Your task to perform on an android device: check data usage Image 0: 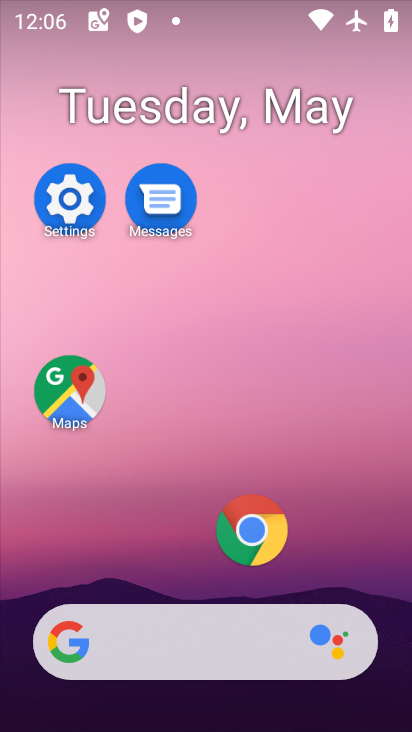
Step 0: drag from (241, 263) to (286, 15)
Your task to perform on an android device: check data usage Image 1: 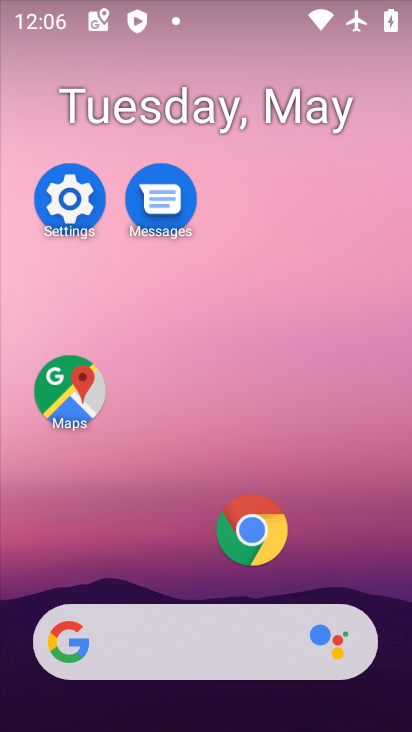
Step 1: drag from (191, 544) to (305, 16)
Your task to perform on an android device: check data usage Image 2: 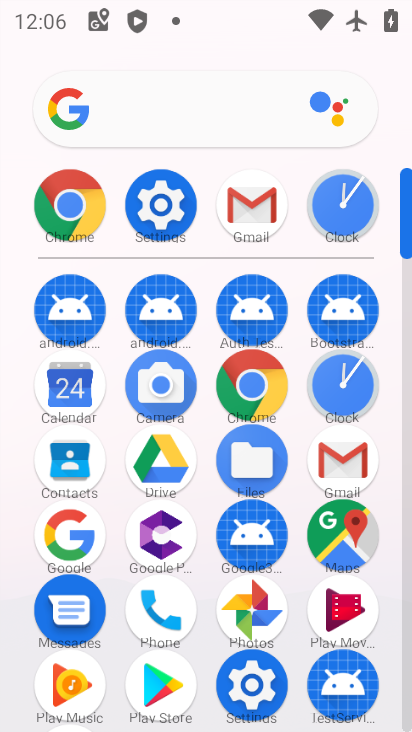
Step 2: click (256, 685)
Your task to perform on an android device: check data usage Image 3: 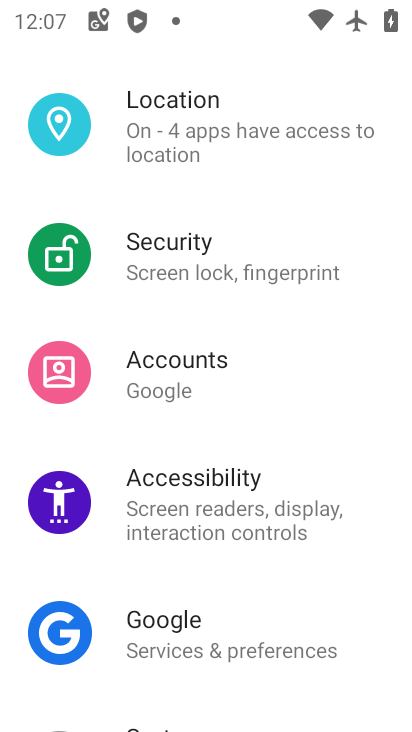
Step 3: drag from (135, 605) to (241, 229)
Your task to perform on an android device: check data usage Image 4: 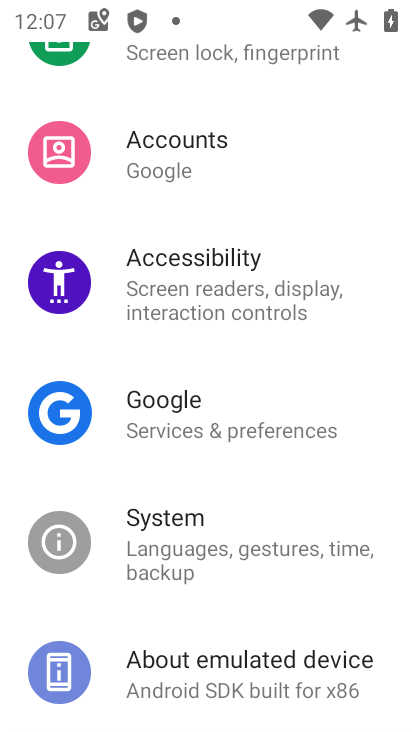
Step 4: click (324, 438)
Your task to perform on an android device: check data usage Image 5: 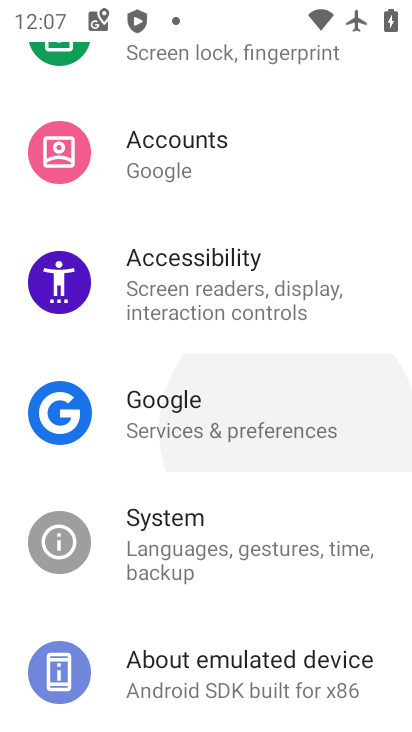
Step 5: drag from (312, 318) to (227, 715)
Your task to perform on an android device: check data usage Image 6: 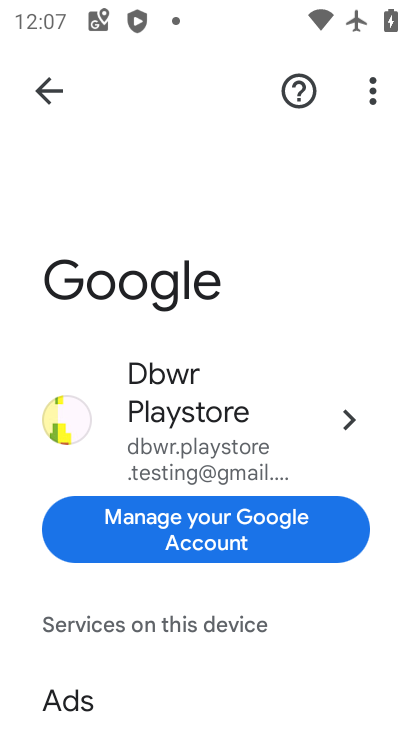
Step 6: press back button
Your task to perform on an android device: check data usage Image 7: 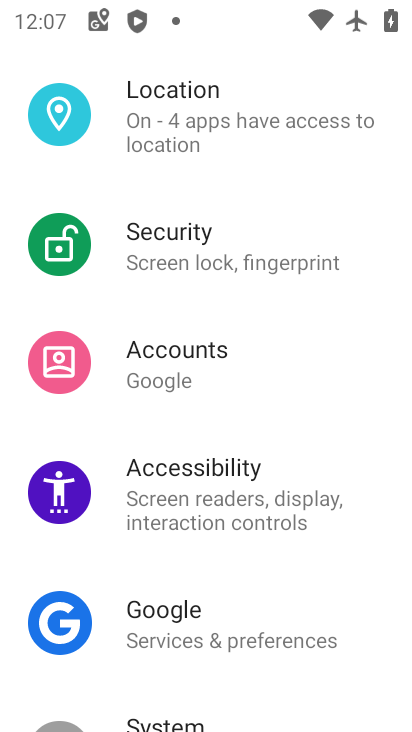
Step 7: drag from (298, 273) to (218, 715)
Your task to perform on an android device: check data usage Image 8: 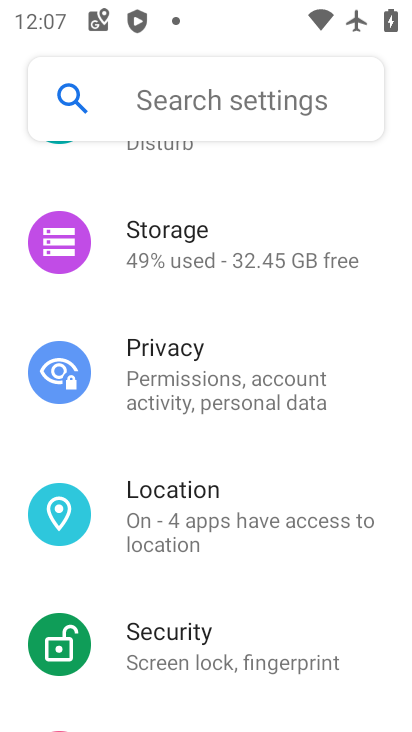
Step 8: drag from (270, 218) to (224, 714)
Your task to perform on an android device: check data usage Image 9: 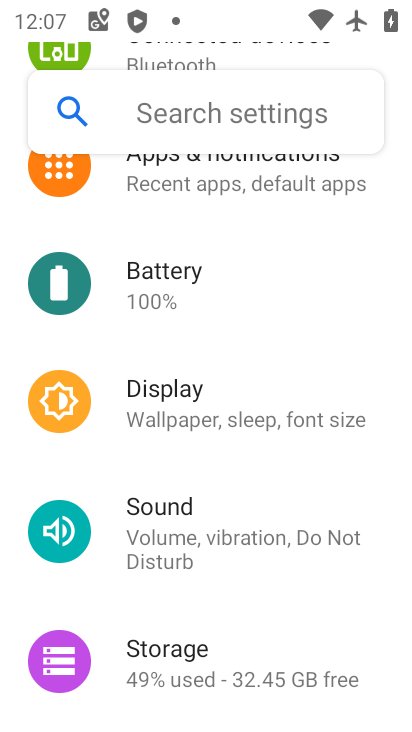
Step 9: drag from (241, 265) to (226, 714)
Your task to perform on an android device: check data usage Image 10: 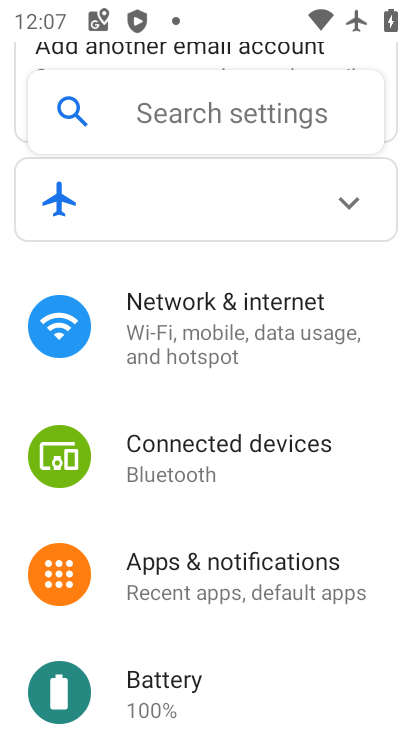
Step 10: click (234, 352)
Your task to perform on an android device: check data usage Image 11: 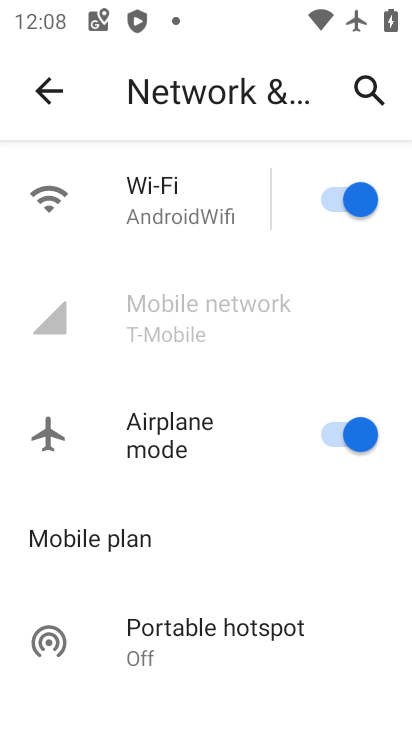
Step 11: click (263, 692)
Your task to perform on an android device: check data usage Image 12: 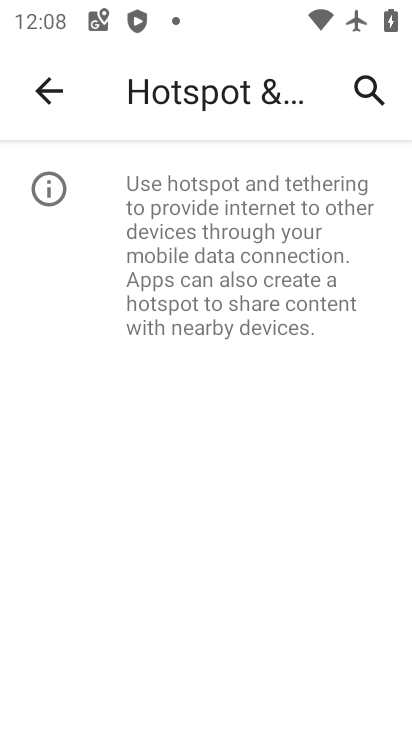
Step 12: press back button
Your task to perform on an android device: check data usage Image 13: 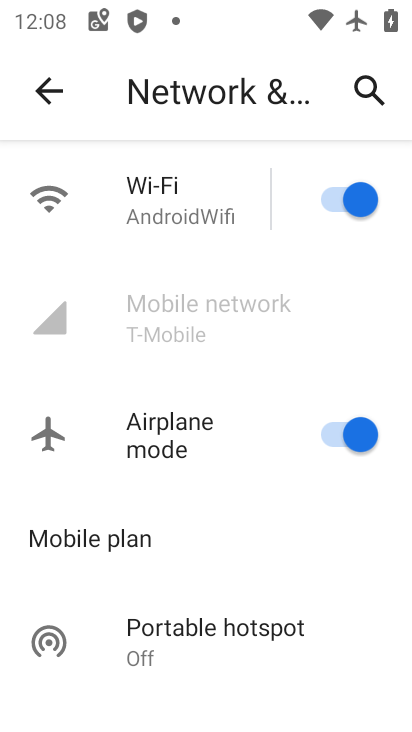
Step 13: click (320, 328)
Your task to perform on an android device: check data usage Image 14: 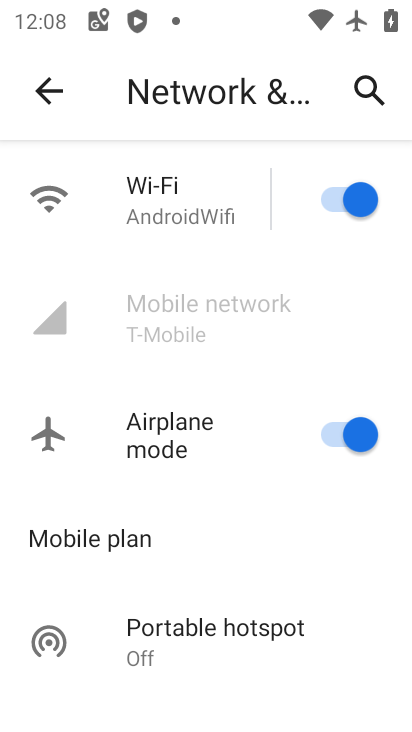
Step 14: task complete